Your task to perform on an android device: toggle priority inbox in the gmail app Image 0: 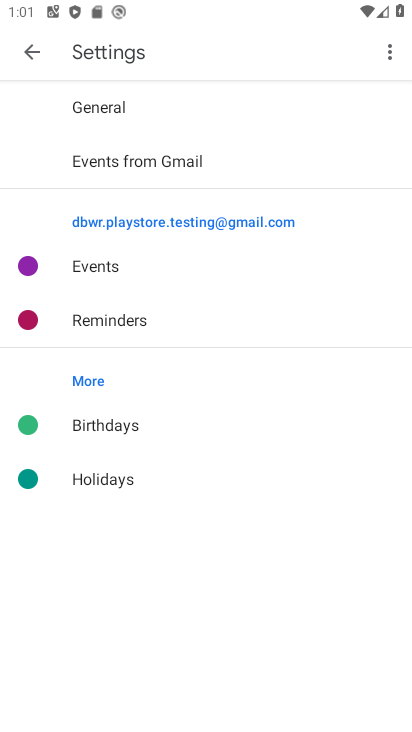
Step 0: press home button
Your task to perform on an android device: toggle priority inbox in the gmail app Image 1: 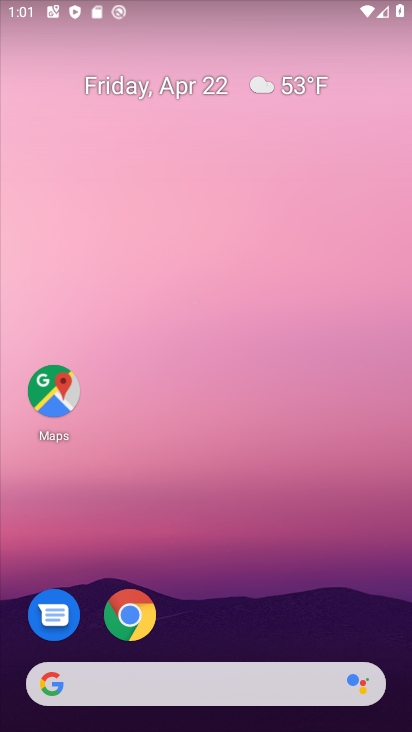
Step 1: drag from (373, 641) to (385, 4)
Your task to perform on an android device: toggle priority inbox in the gmail app Image 2: 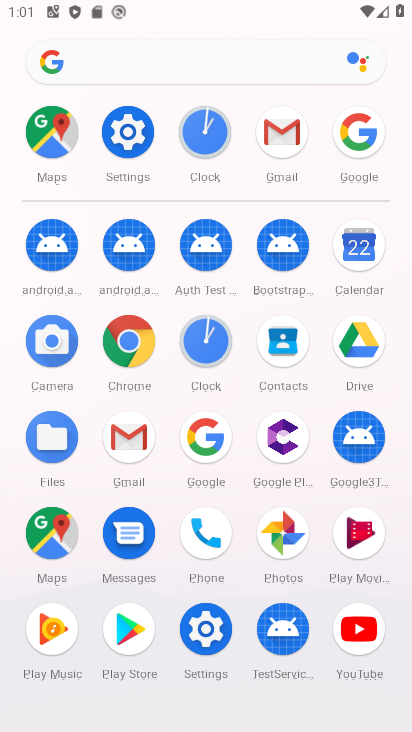
Step 2: click (281, 132)
Your task to perform on an android device: toggle priority inbox in the gmail app Image 3: 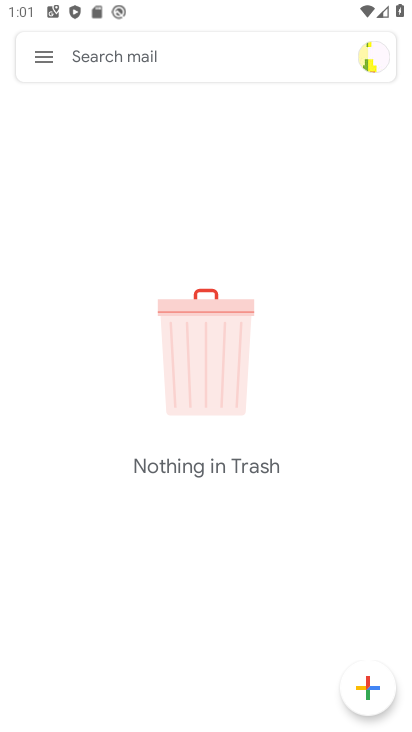
Step 3: click (46, 59)
Your task to perform on an android device: toggle priority inbox in the gmail app Image 4: 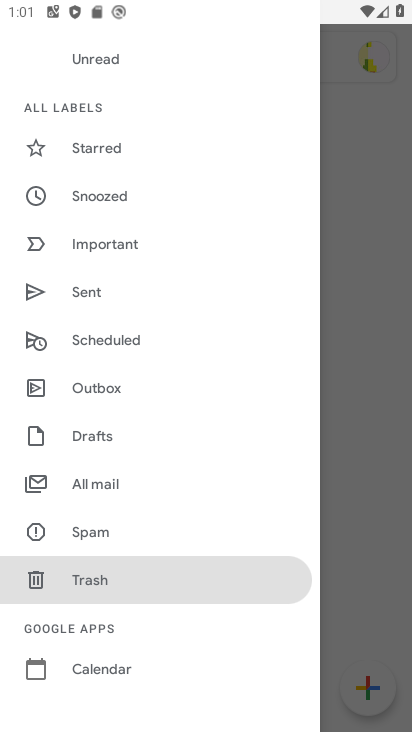
Step 4: drag from (181, 648) to (153, 215)
Your task to perform on an android device: toggle priority inbox in the gmail app Image 5: 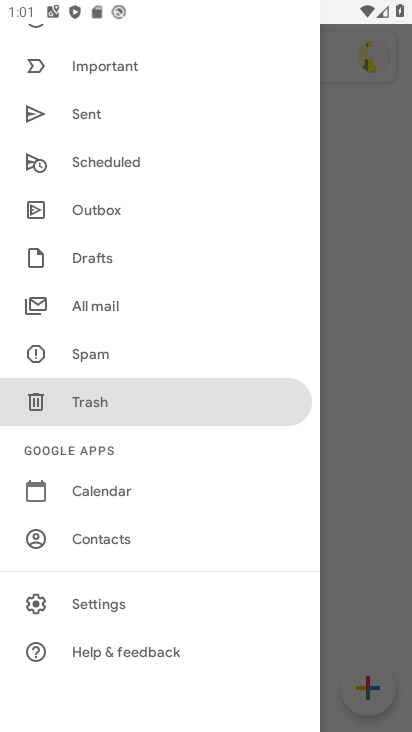
Step 5: click (97, 605)
Your task to perform on an android device: toggle priority inbox in the gmail app Image 6: 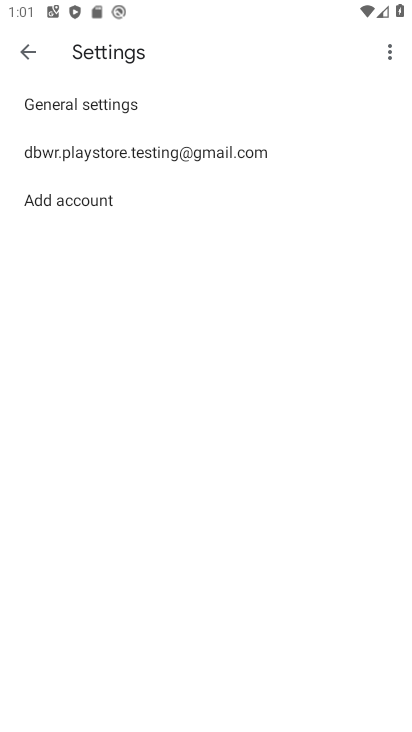
Step 6: click (103, 155)
Your task to perform on an android device: toggle priority inbox in the gmail app Image 7: 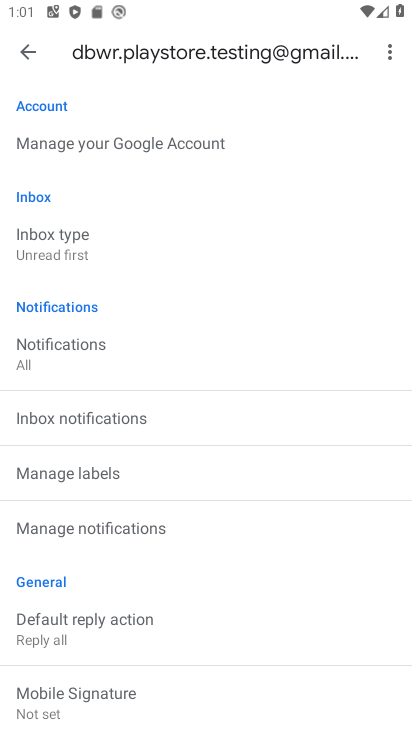
Step 7: click (60, 248)
Your task to perform on an android device: toggle priority inbox in the gmail app Image 8: 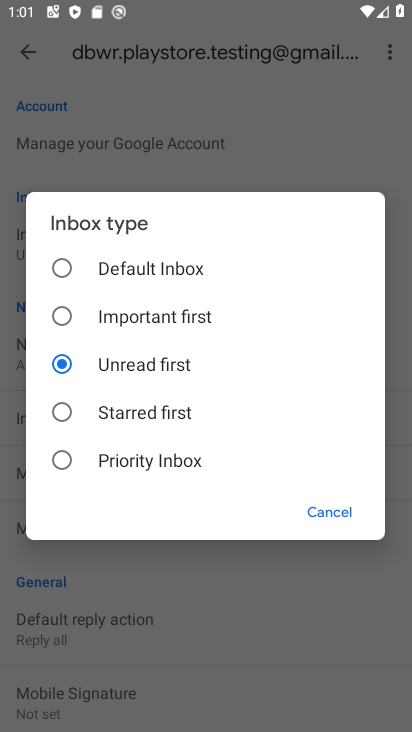
Step 8: click (64, 456)
Your task to perform on an android device: toggle priority inbox in the gmail app Image 9: 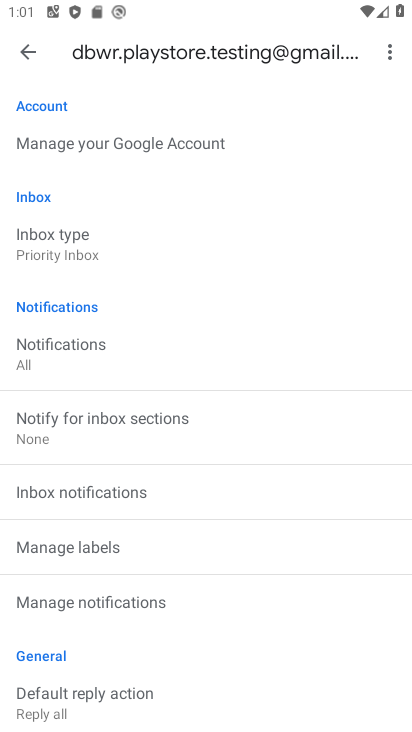
Step 9: task complete